Your task to perform on an android device: Look up the best gaming headphones on Best Buy Image 0: 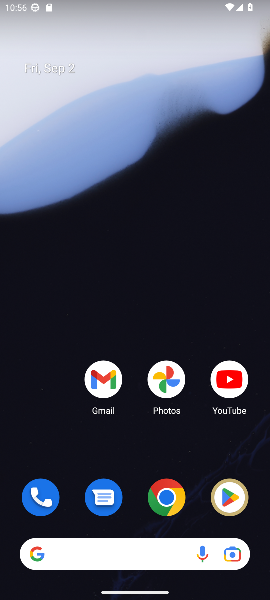
Step 0: drag from (135, 232) to (136, 87)
Your task to perform on an android device: Look up the best gaming headphones on Best Buy Image 1: 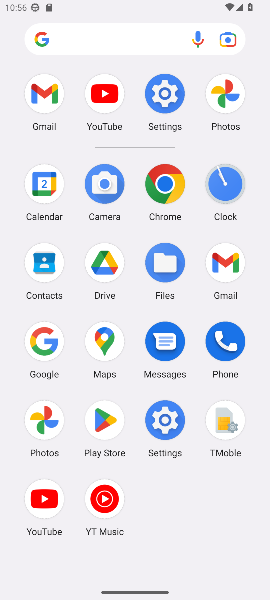
Step 1: click (153, 188)
Your task to perform on an android device: Look up the best gaming headphones on Best Buy Image 2: 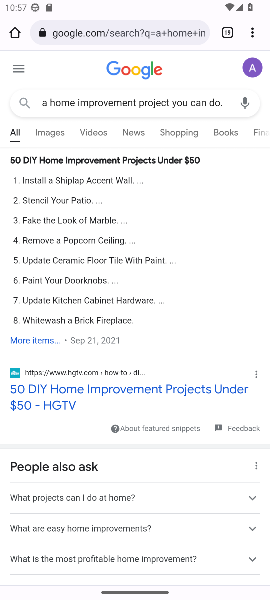
Step 2: click (153, 188)
Your task to perform on an android device: Look up the best gaming headphones on Best Buy Image 3: 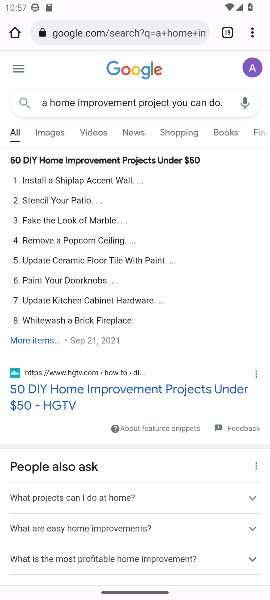
Step 3: click (153, 188)
Your task to perform on an android device: Look up the best gaming headphones on Best Buy Image 4: 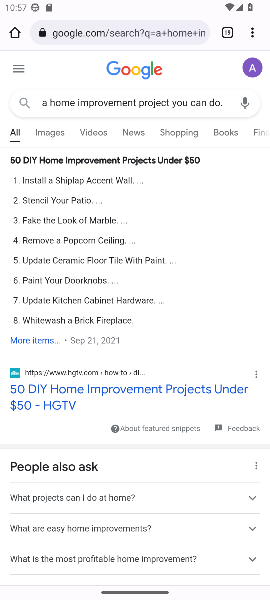
Step 4: click (114, 31)
Your task to perform on an android device: Look up the best gaming headphones on Best Buy Image 5: 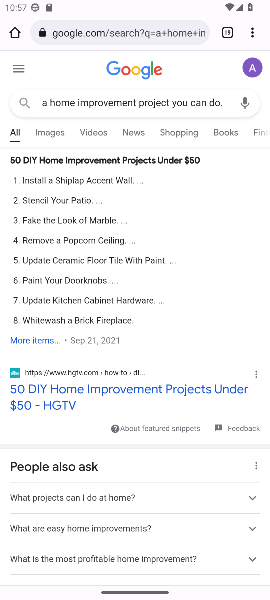
Step 5: click (114, 31)
Your task to perform on an android device: Look up the best gaming headphones on Best Buy Image 6: 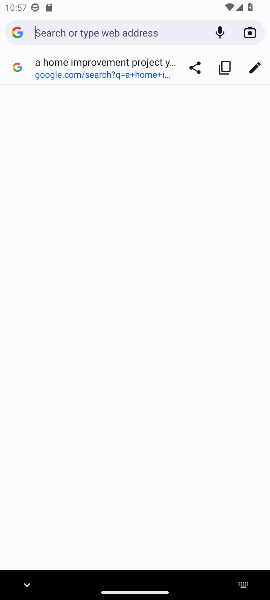
Step 6: type "the best gaming headphones on Best Buy"
Your task to perform on an android device: Look up the best gaming headphones on Best Buy Image 7: 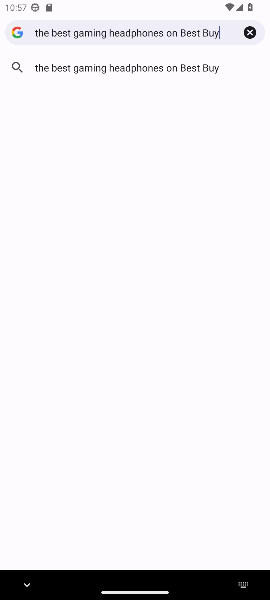
Step 7: click (126, 67)
Your task to perform on an android device: Look up the best gaming headphones on Best Buy Image 8: 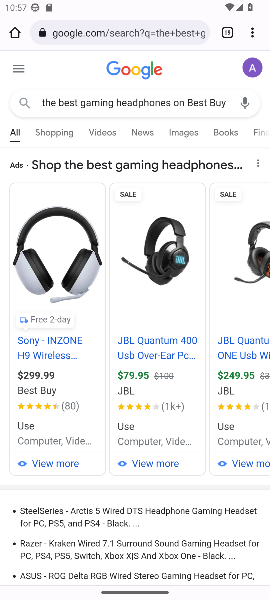
Step 8: task complete